Your task to perform on an android device: Open sound settings Image 0: 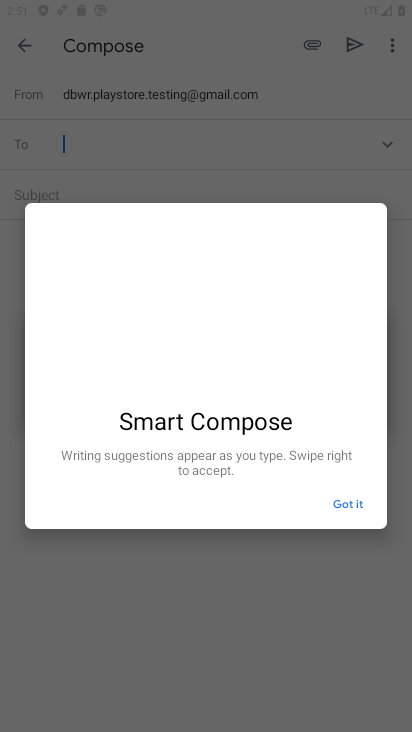
Step 0: press home button
Your task to perform on an android device: Open sound settings Image 1: 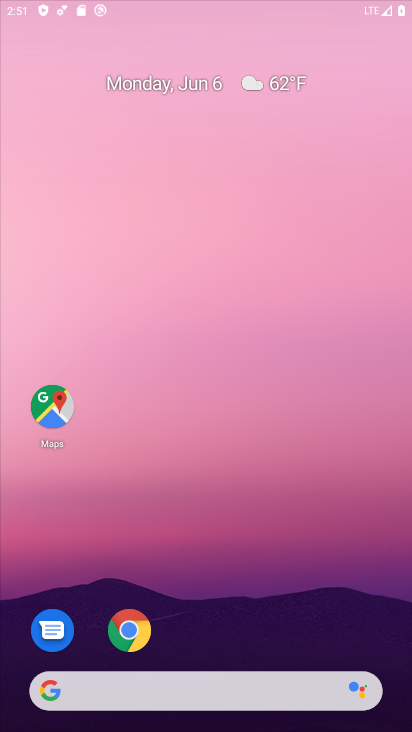
Step 1: drag from (340, 639) to (301, 110)
Your task to perform on an android device: Open sound settings Image 2: 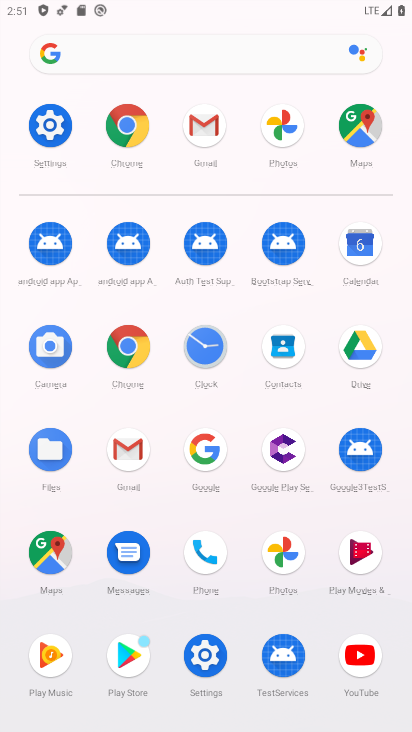
Step 2: click (208, 640)
Your task to perform on an android device: Open sound settings Image 3: 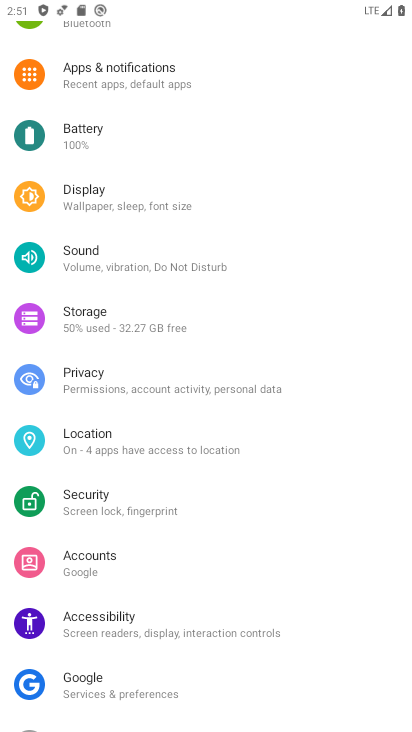
Step 3: drag from (237, 558) to (202, 136)
Your task to perform on an android device: Open sound settings Image 4: 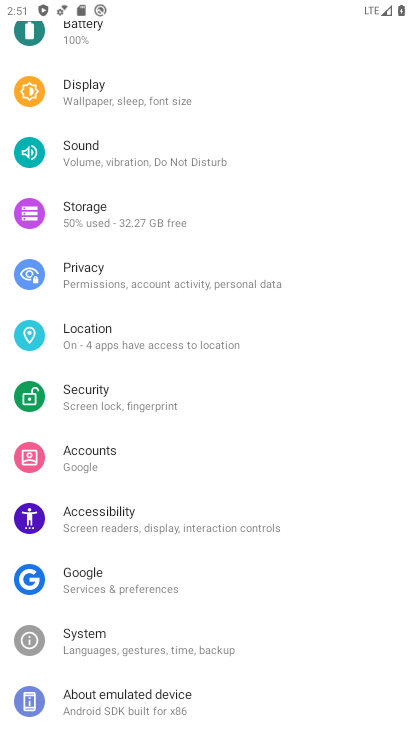
Step 4: click (120, 151)
Your task to perform on an android device: Open sound settings Image 5: 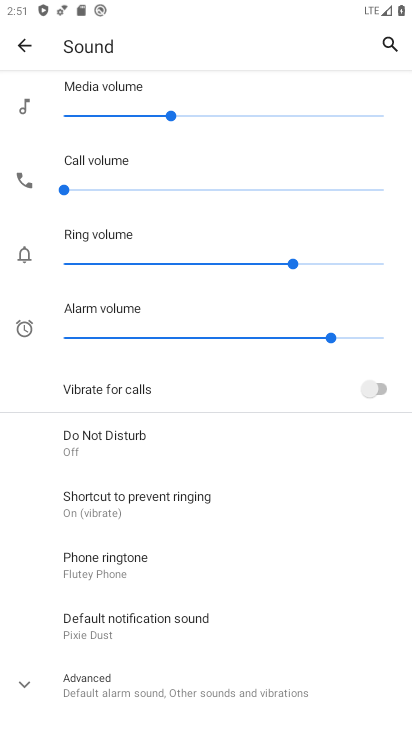
Step 5: task complete